Your task to perform on an android device: Open Chrome and go to settings Image 0: 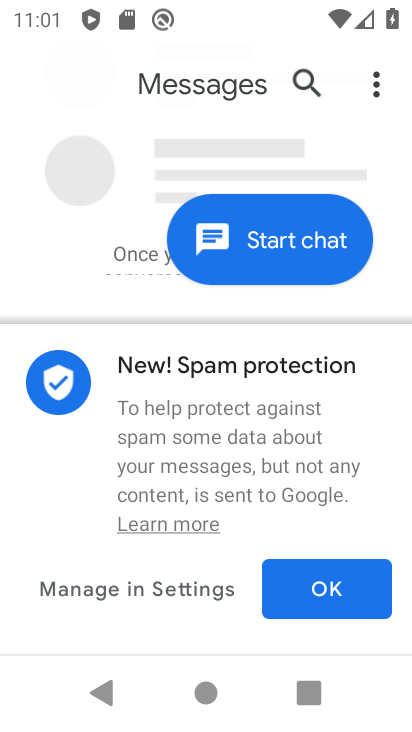
Step 0: click (335, 582)
Your task to perform on an android device: Open Chrome and go to settings Image 1: 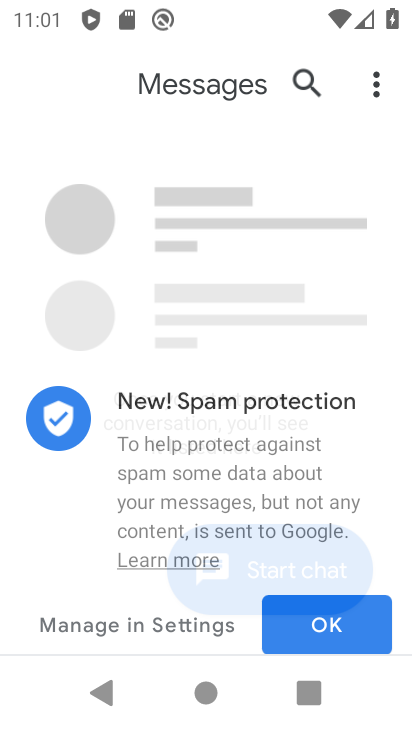
Step 1: press home button
Your task to perform on an android device: Open Chrome and go to settings Image 2: 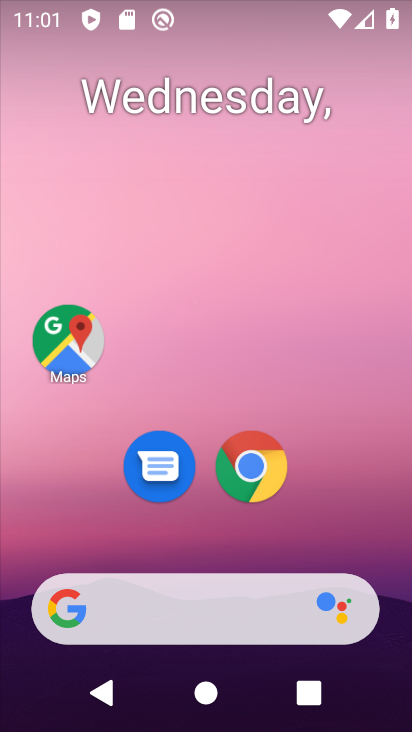
Step 2: drag from (259, 694) to (151, 148)
Your task to perform on an android device: Open Chrome and go to settings Image 3: 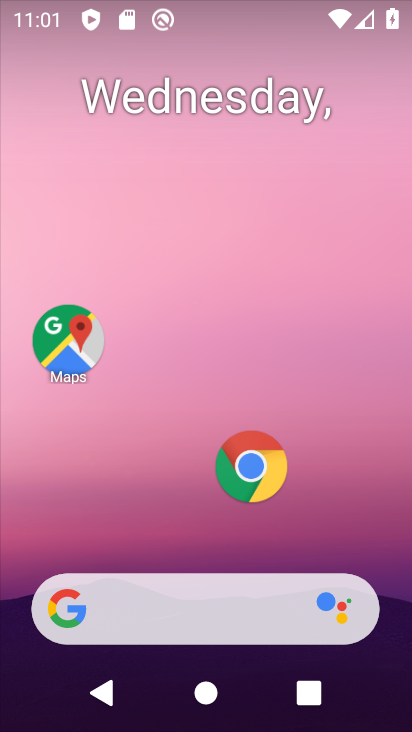
Step 3: drag from (274, 520) to (236, 124)
Your task to perform on an android device: Open Chrome and go to settings Image 4: 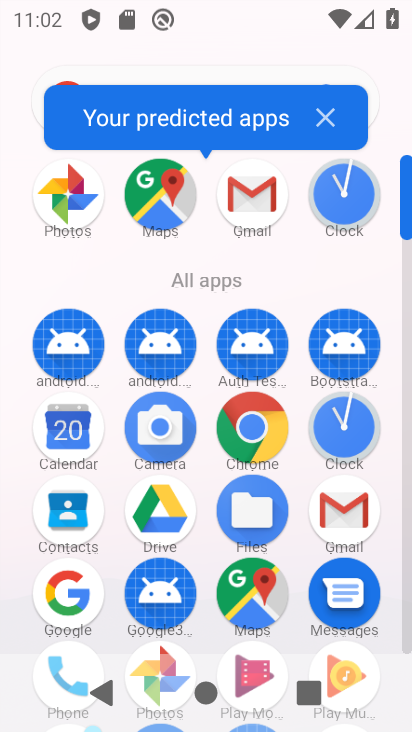
Step 4: click (407, 615)
Your task to perform on an android device: Open Chrome and go to settings Image 5: 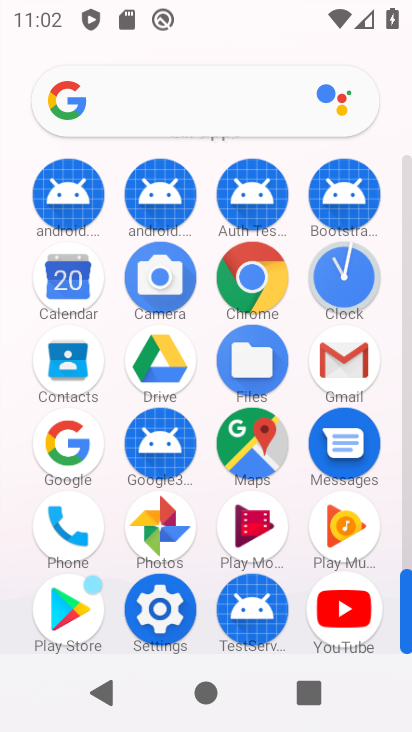
Step 5: click (152, 598)
Your task to perform on an android device: Open Chrome and go to settings Image 6: 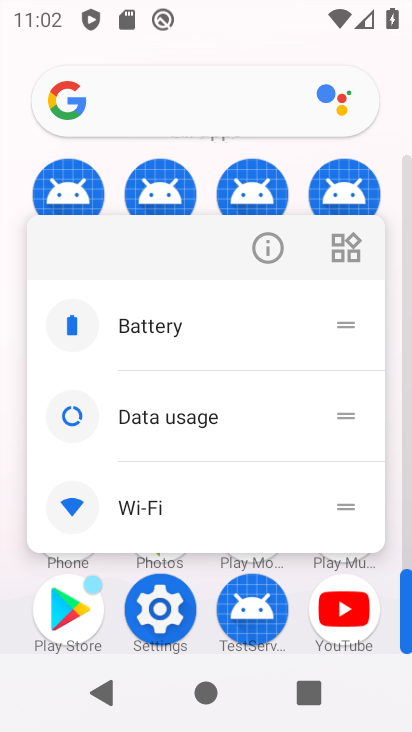
Step 6: click (152, 598)
Your task to perform on an android device: Open Chrome and go to settings Image 7: 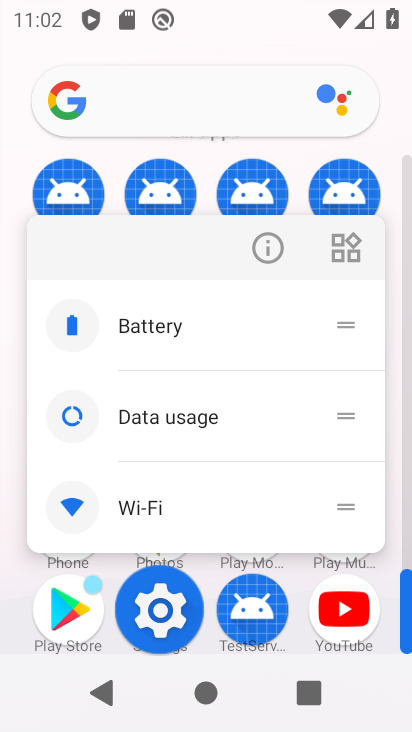
Step 7: click (152, 598)
Your task to perform on an android device: Open Chrome and go to settings Image 8: 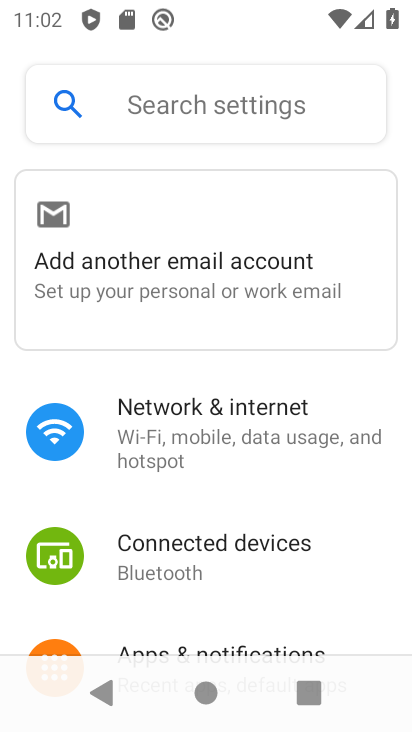
Step 8: press home button
Your task to perform on an android device: Open Chrome and go to settings Image 9: 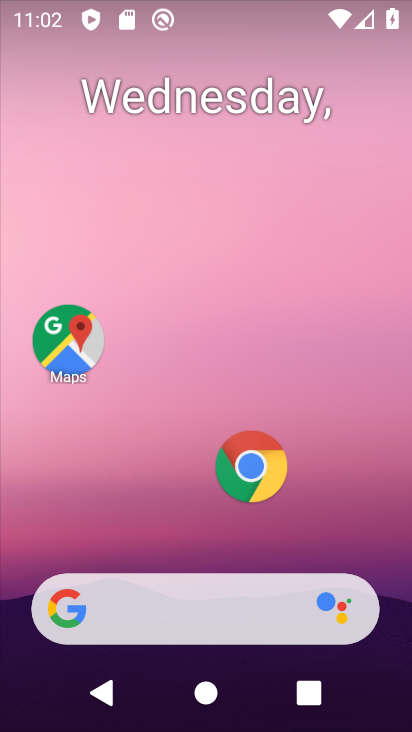
Step 9: click (207, 454)
Your task to perform on an android device: Open Chrome and go to settings Image 10: 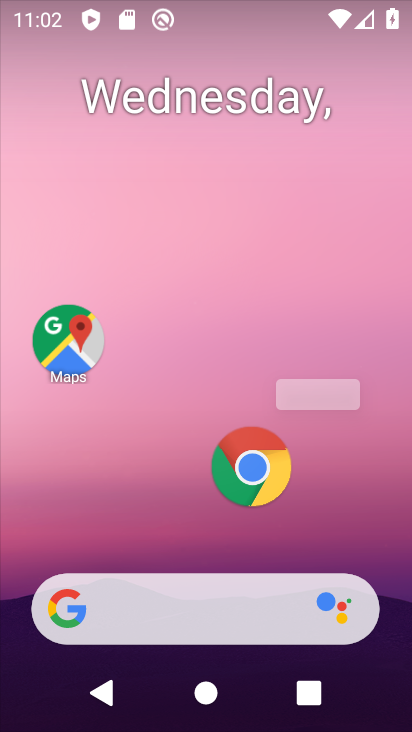
Step 10: click (264, 471)
Your task to perform on an android device: Open Chrome and go to settings Image 11: 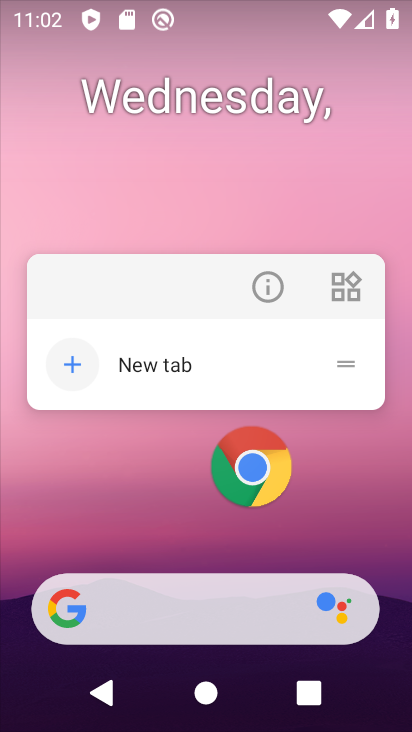
Step 11: click (264, 471)
Your task to perform on an android device: Open Chrome and go to settings Image 12: 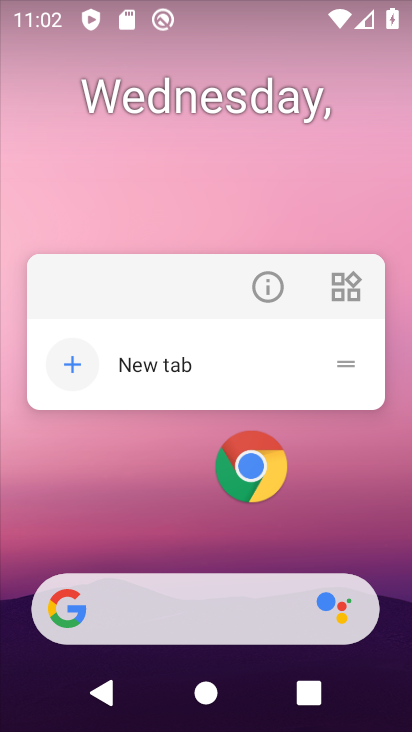
Step 12: click (245, 470)
Your task to perform on an android device: Open Chrome and go to settings Image 13: 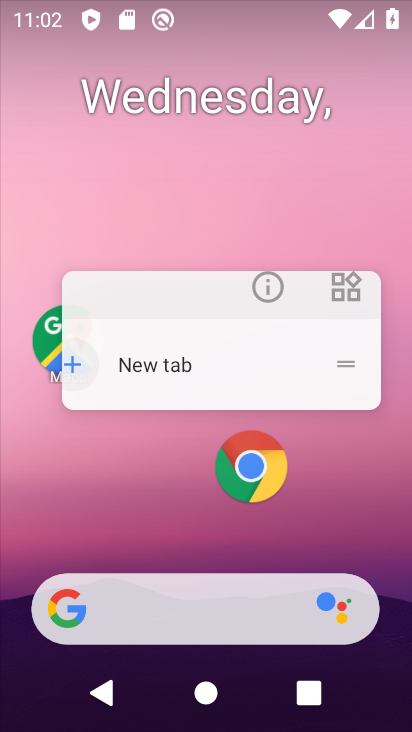
Step 13: click (245, 470)
Your task to perform on an android device: Open Chrome and go to settings Image 14: 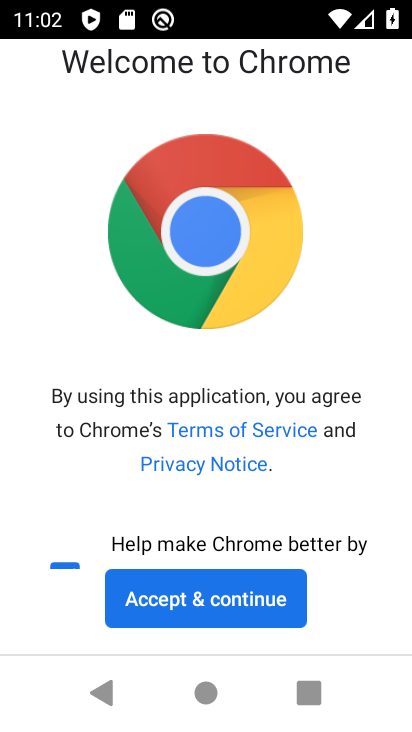
Step 14: click (235, 609)
Your task to perform on an android device: Open Chrome and go to settings Image 15: 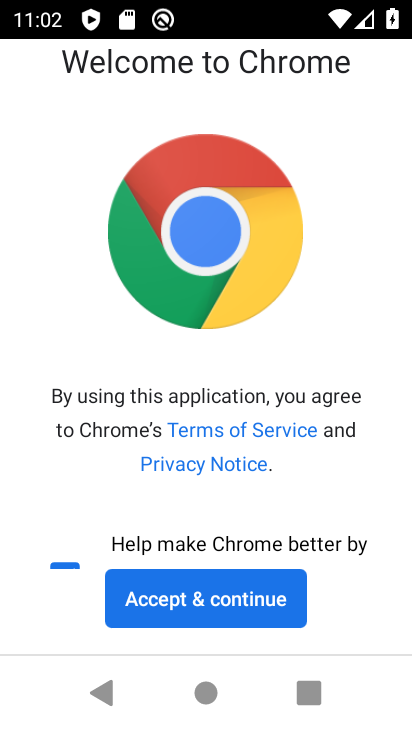
Step 15: click (231, 605)
Your task to perform on an android device: Open Chrome and go to settings Image 16: 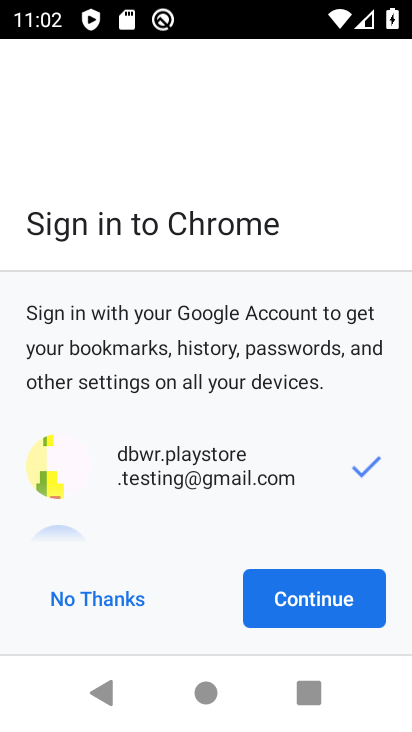
Step 16: click (332, 592)
Your task to perform on an android device: Open Chrome and go to settings Image 17: 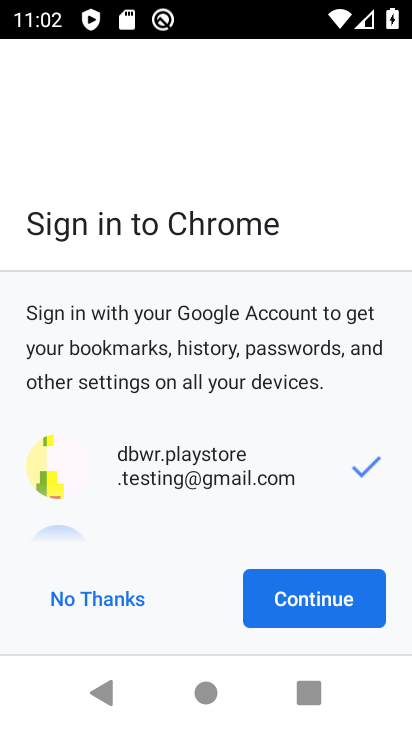
Step 17: click (332, 592)
Your task to perform on an android device: Open Chrome and go to settings Image 18: 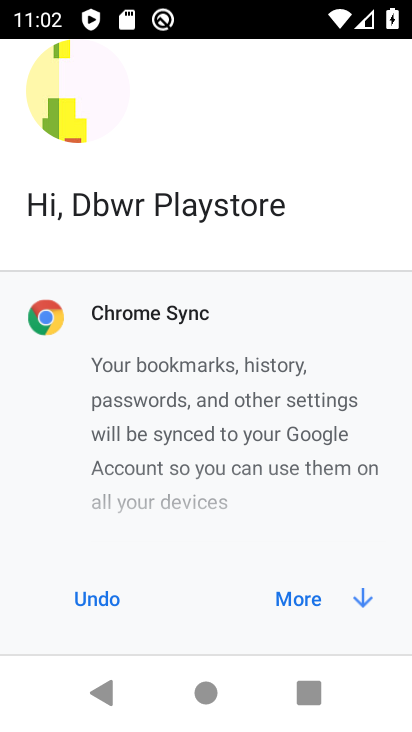
Step 18: click (332, 592)
Your task to perform on an android device: Open Chrome and go to settings Image 19: 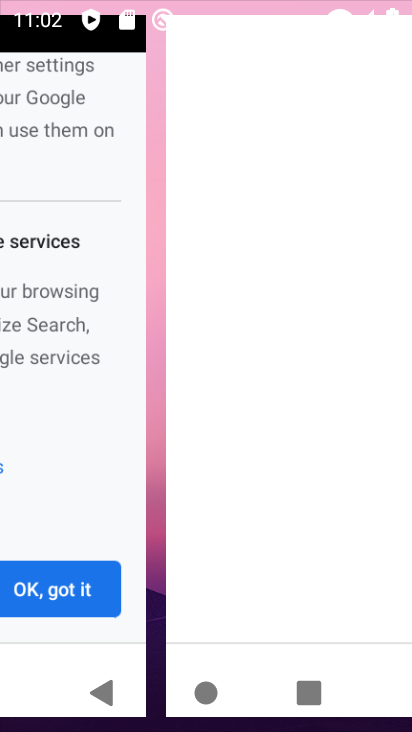
Step 19: click (332, 592)
Your task to perform on an android device: Open Chrome and go to settings Image 20: 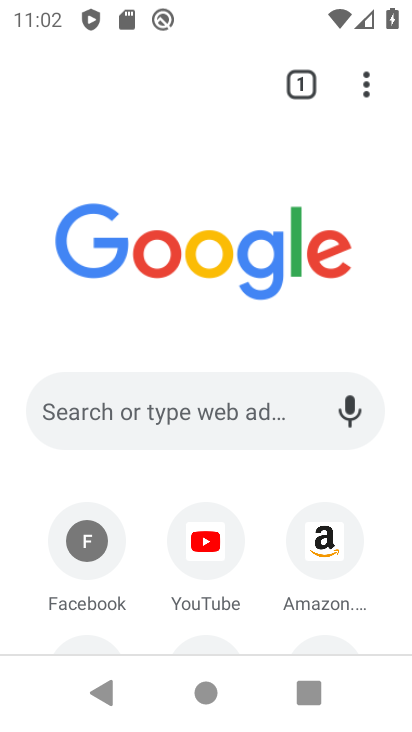
Step 20: click (360, 85)
Your task to perform on an android device: Open Chrome and go to settings Image 21: 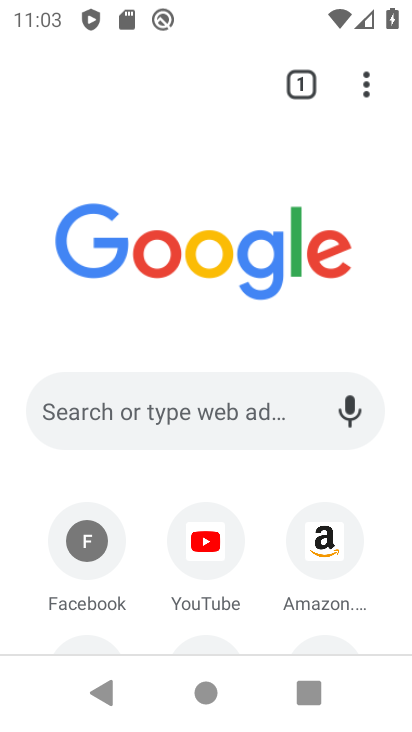
Step 21: drag from (364, 88) to (108, 514)
Your task to perform on an android device: Open Chrome and go to settings Image 22: 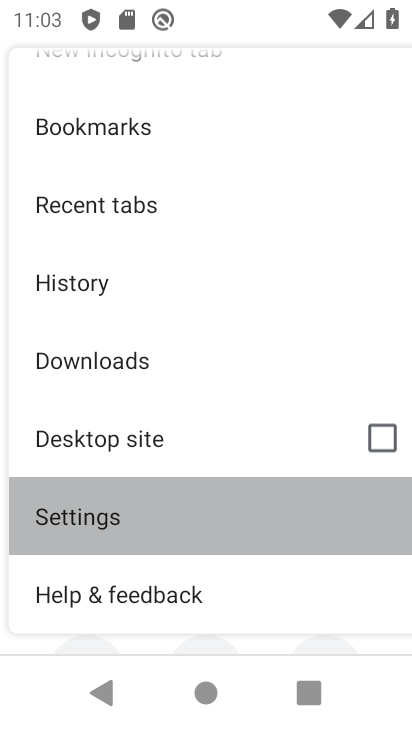
Step 22: click (108, 514)
Your task to perform on an android device: Open Chrome and go to settings Image 23: 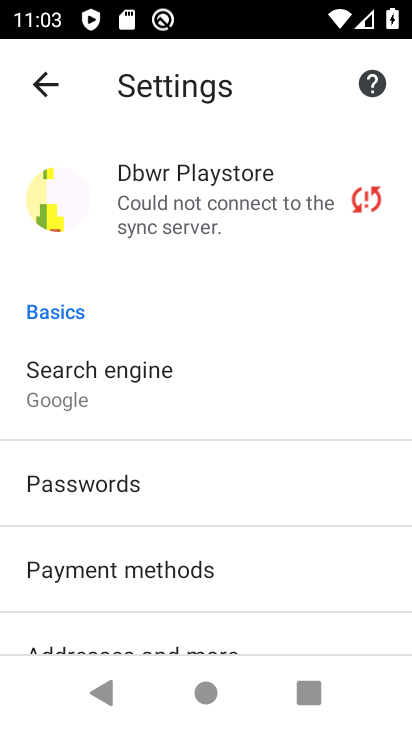
Step 23: task complete